Your task to perform on an android device: What is the news today? Image 0: 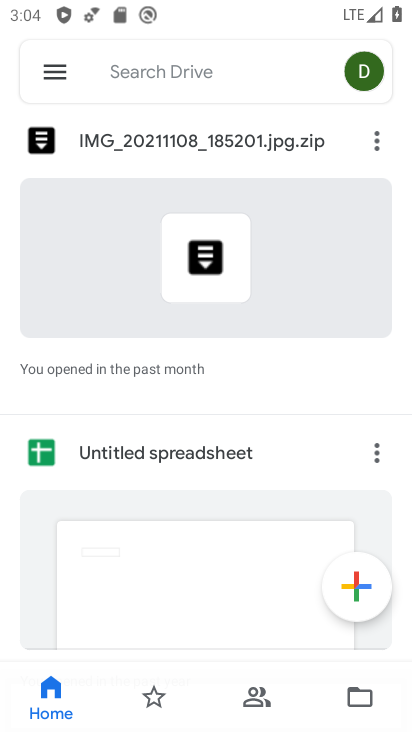
Step 0: press home button
Your task to perform on an android device: What is the news today? Image 1: 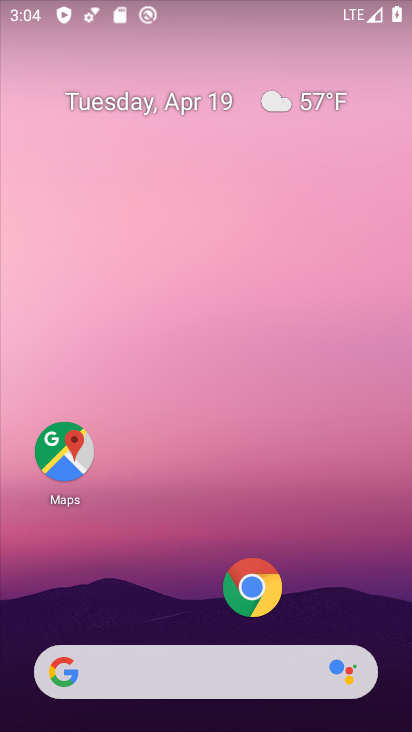
Step 1: click (203, 676)
Your task to perform on an android device: What is the news today? Image 2: 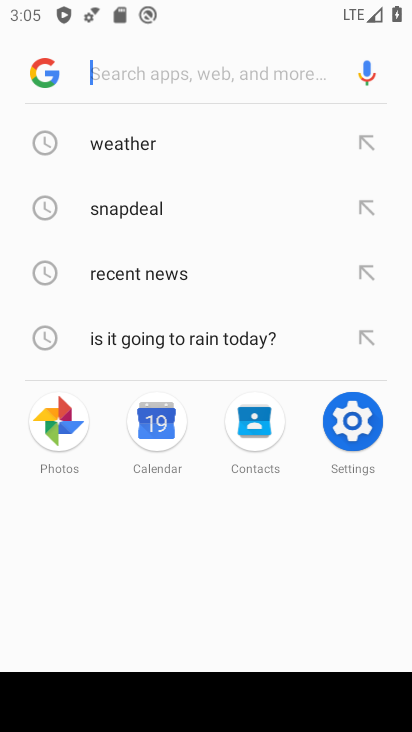
Step 2: type "news today"
Your task to perform on an android device: What is the news today? Image 3: 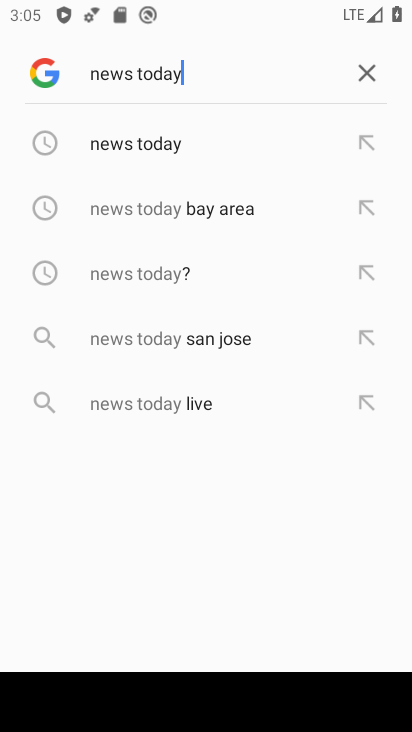
Step 3: click (163, 126)
Your task to perform on an android device: What is the news today? Image 4: 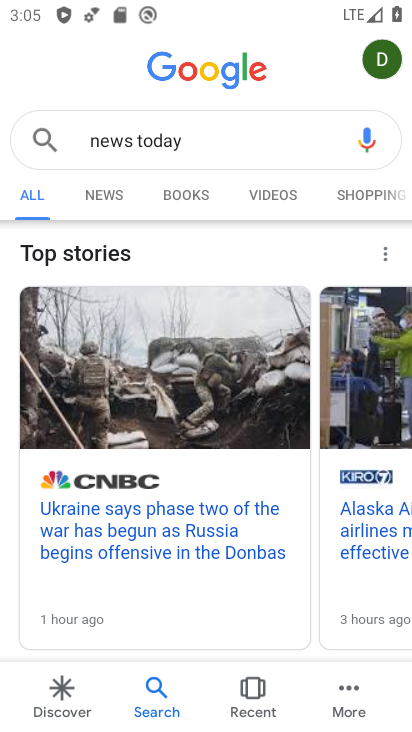
Step 4: task complete